Your task to perform on an android device: Show me productivity apps on the Play Store Image 0: 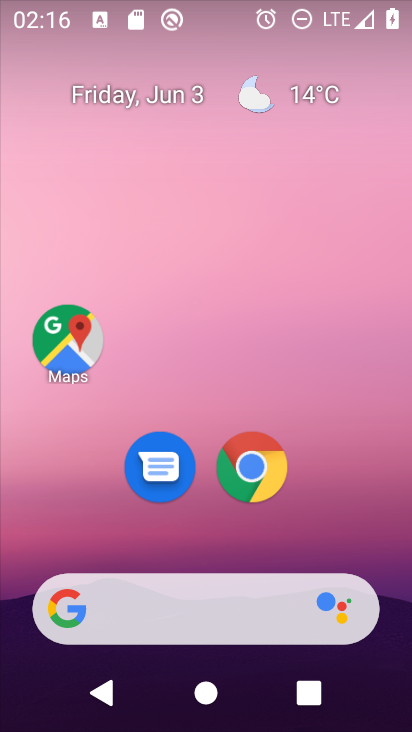
Step 0: drag from (407, 585) to (343, 3)
Your task to perform on an android device: Show me productivity apps on the Play Store Image 1: 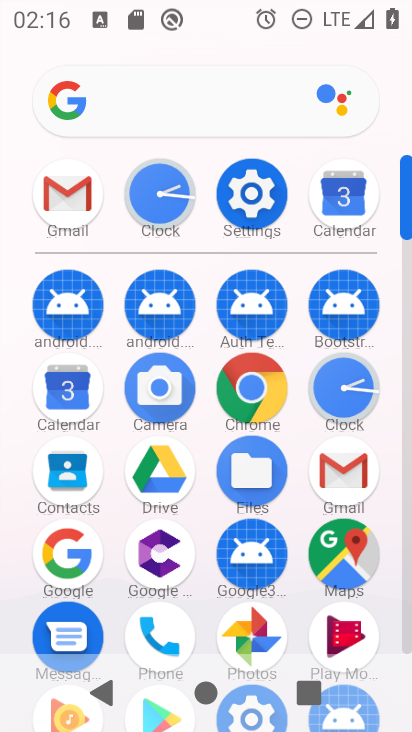
Step 1: click (409, 611)
Your task to perform on an android device: Show me productivity apps on the Play Store Image 2: 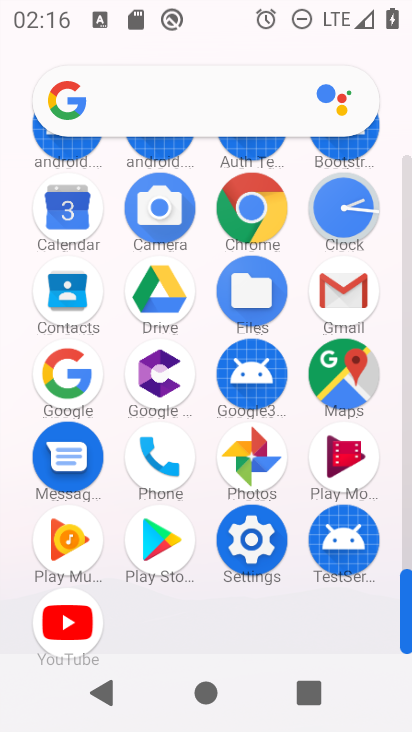
Step 2: click (167, 535)
Your task to perform on an android device: Show me productivity apps on the Play Store Image 3: 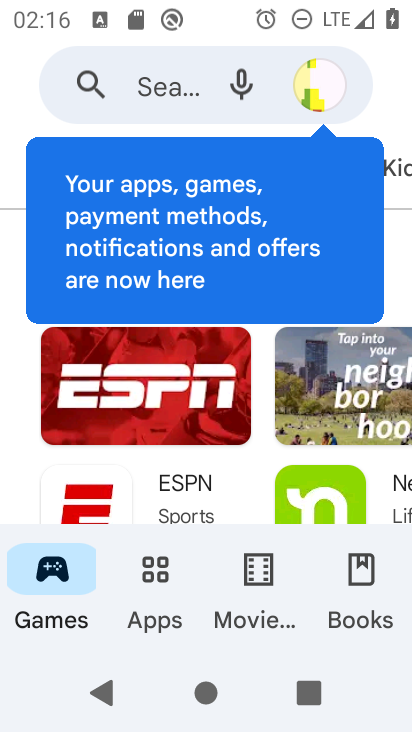
Step 3: click (163, 583)
Your task to perform on an android device: Show me productivity apps on the Play Store Image 4: 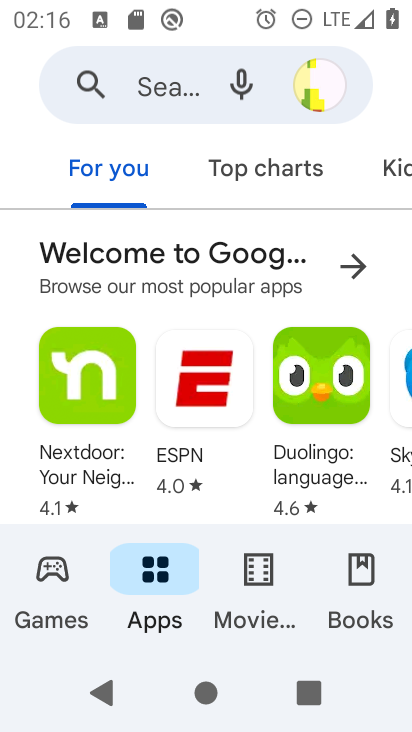
Step 4: drag from (400, 159) to (81, 175)
Your task to perform on an android device: Show me productivity apps on the Play Store Image 5: 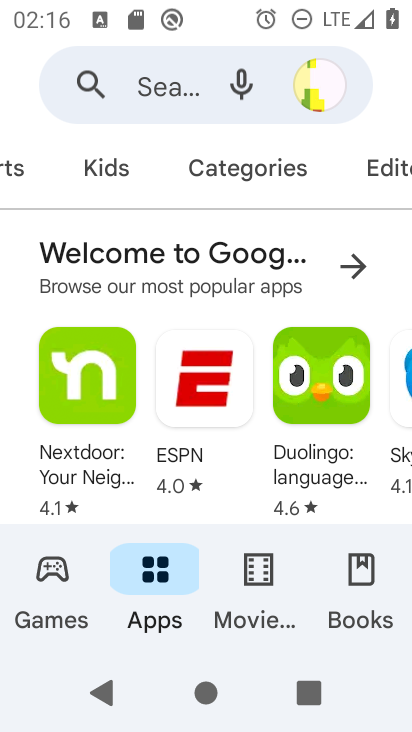
Step 5: click (256, 167)
Your task to perform on an android device: Show me productivity apps on the Play Store Image 6: 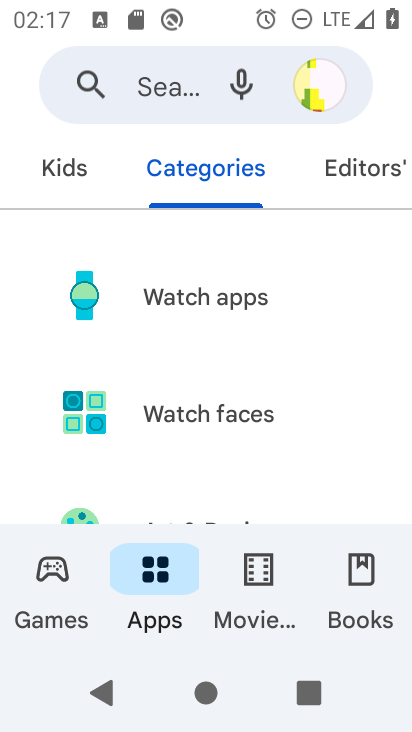
Step 6: drag from (279, 456) to (250, 36)
Your task to perform on an android device: Show me productivity apps on the Play Store Image 7: 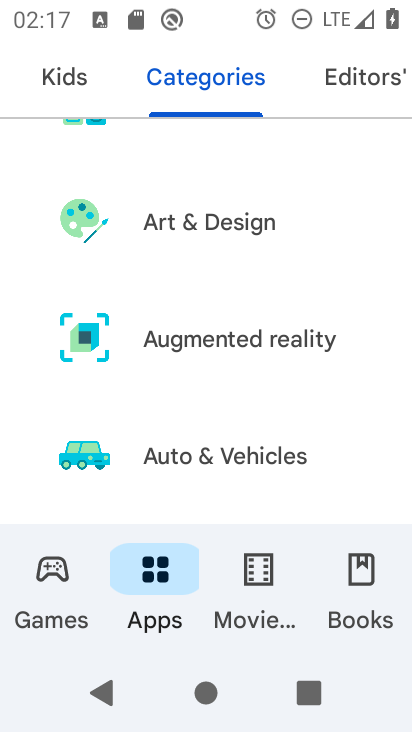
Step 7: drag from (291, 474) to (265, 38)
Your task to perform on an android device: Show me productivity apps on the Play Store Image 8: 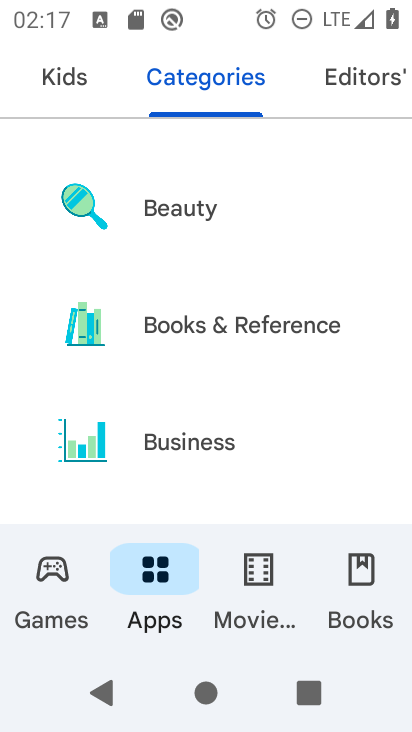
Step 8: drag from (306, 456) to (310, 84)
Your task to perform on an android device: Show me productivity apps on the Play Store Image 9: 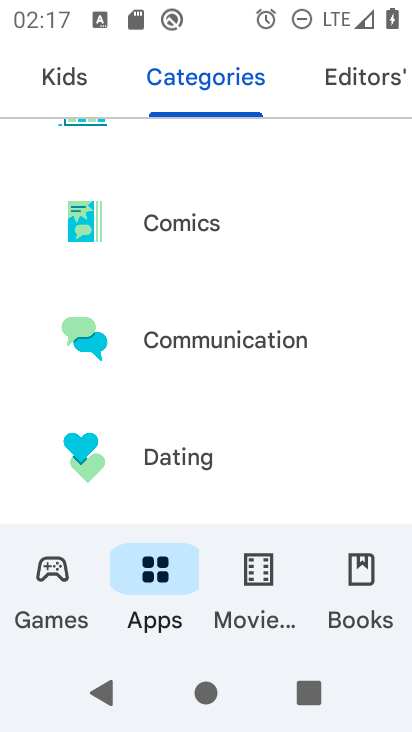
Step 9: drag from (276, 490) to (295, 118)
Your task to perform on an android device: Show me productivity apps on the Play Store Image 10: 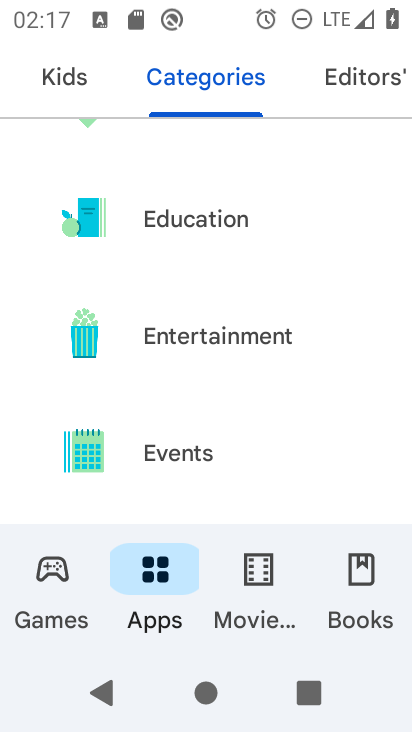
Step 10: drag from (290, 494) to (283, 83)
Your task to perform on an android device: Show me productivity apps on the Play Store Image 11: 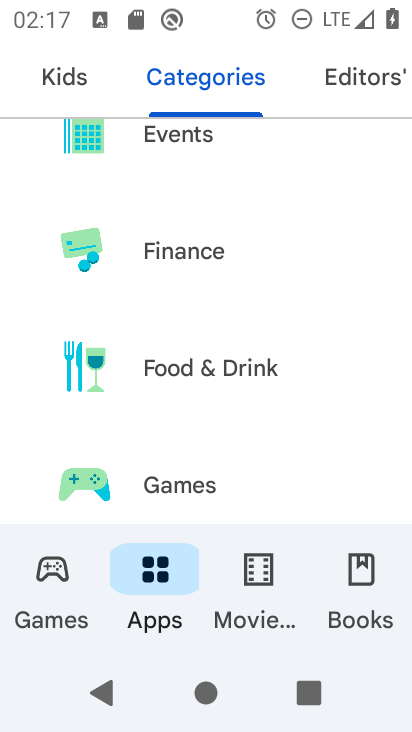
Step 11: drag from (276, 458) to (276, 118)
Your task to perform on an android device: Show me productivity apps on the Play Store Image 12: 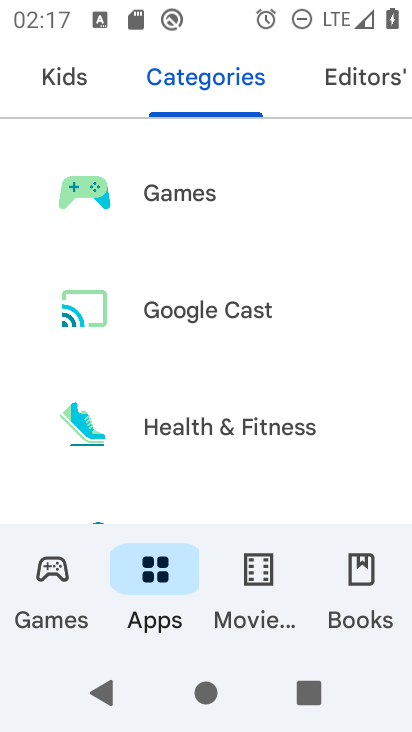
Step 12: drag from (319, 497) to (293, 142)
Your task to perform on an android device: Show me productivity apps on the Play Store Image 13: 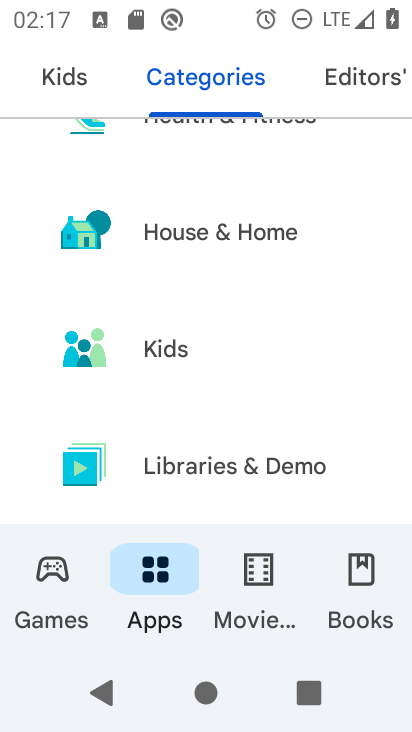
Step 13: drag from (307, 464) to (303, 117)
Your task to perform on an android device: Show me productivity apps on the Play Store Image 14: 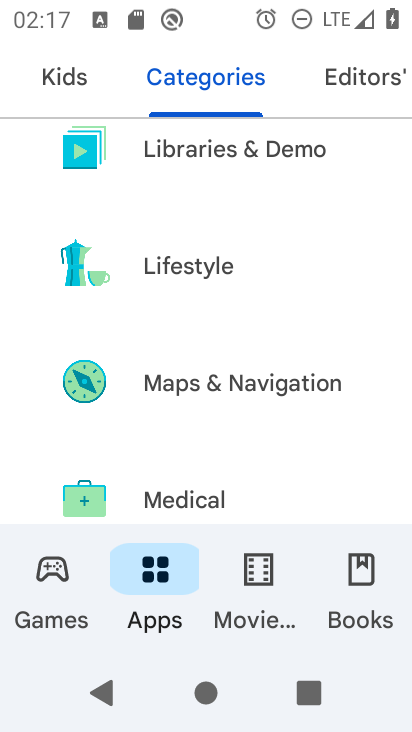
Step 14: drag from (301, 492) to (325, 146)
Your task to perform on an android device: Show me productivity apps on the Play Store Image 15: 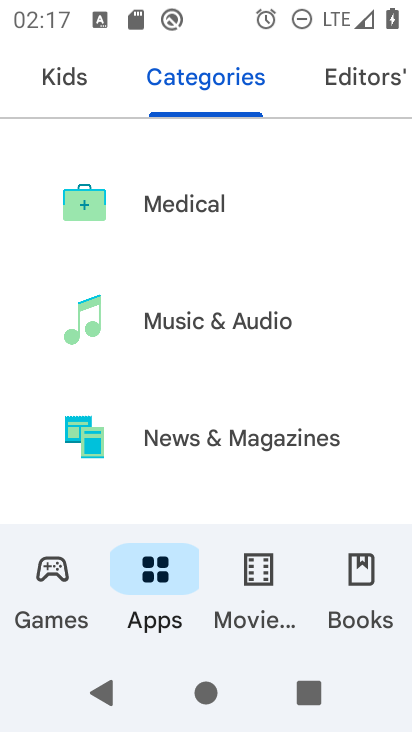
Step 15: drag from (319, 476) to (305, 43)
Your task to perform on an android device: Show me productivity apps on the Play Store Image 16: 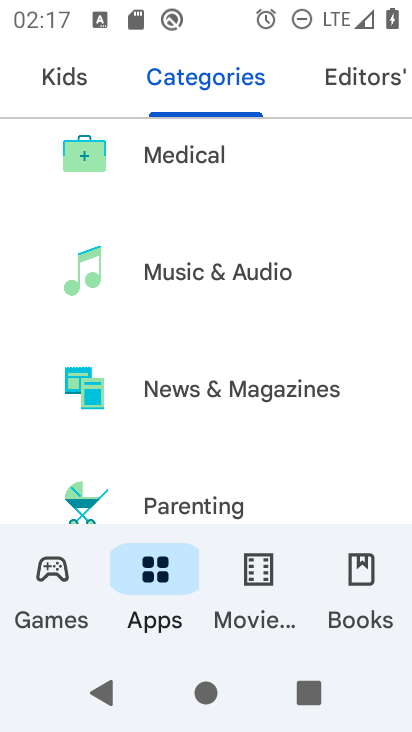
Step 16: drag from (314, 505) to (314, 140)
Your task to perform on an android device: Show me productivity apps on the Play Store Image 17: 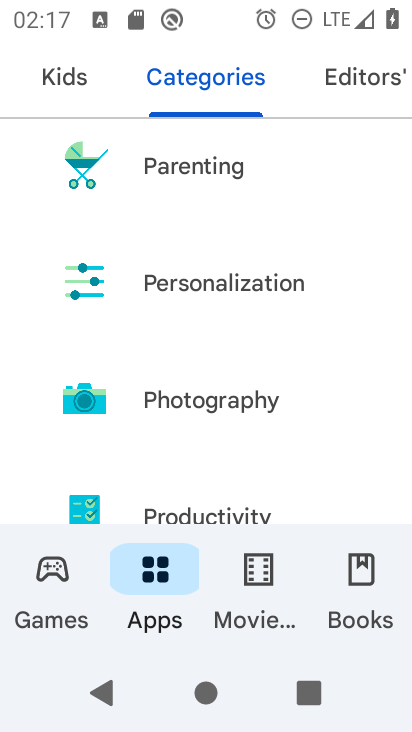
Step 17: drag from (286, 475) to (310, 300)
Your task to perform on an android device: Show me productivity apps on the Play Store Image 18: 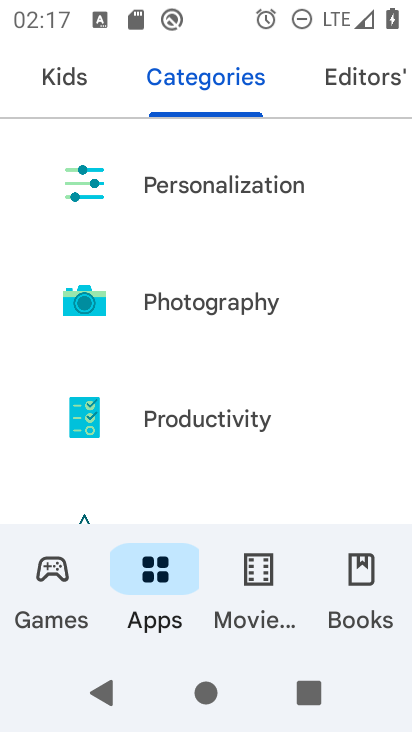
Step 18: click (173, 410)
Your task to perform on an android device: Show me productivity apps on the Play Store Image 19: 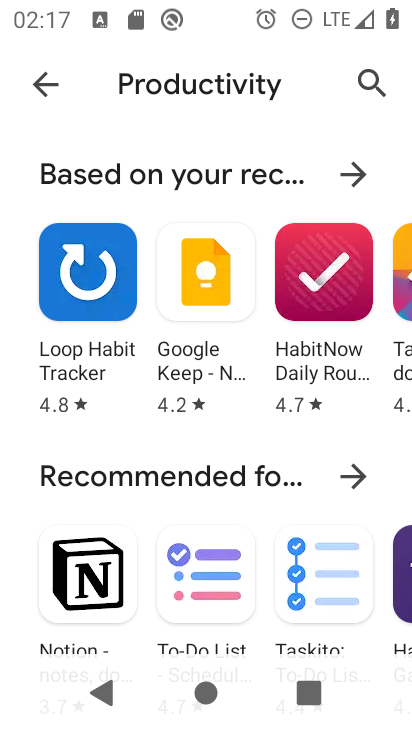
Step 19: drag from (277, 481) to (291, 136)
Your task to perform on an android device: Show me productivity apps on the Play Store Image 20: 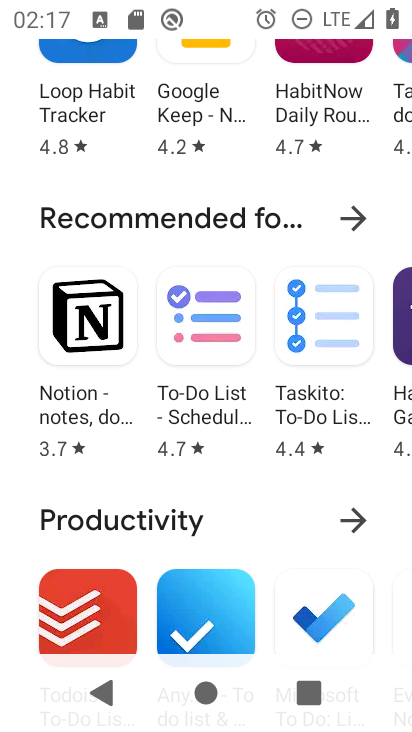
Step 20: click (354, 517)
Your task to perform on an android device: Show me productivity apps on the Play Store Image 21: 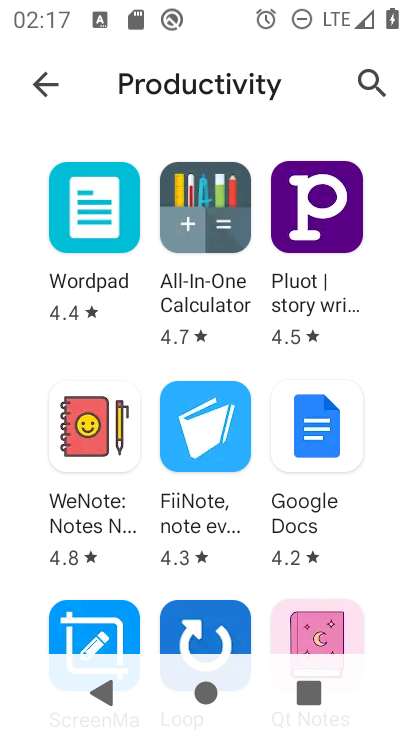
Step 21: task complete